Your task to perform on an android device: Open calendar and show me the first week of next month Image 0: 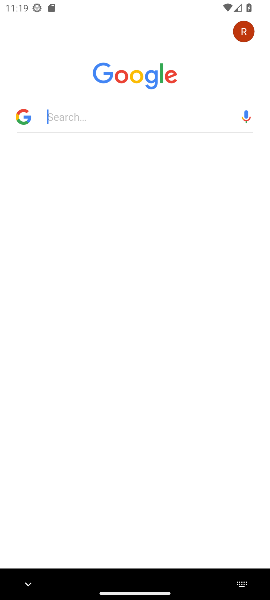
Step 0: press back button
Your task to perform on an android device: Open calendar and show me the first week of next month Image 1: 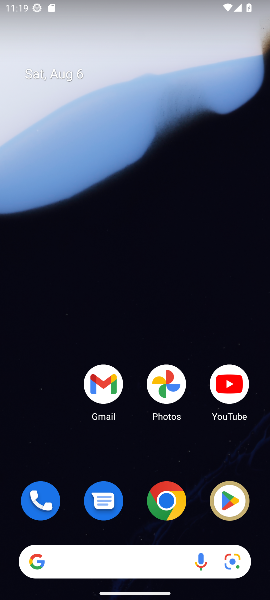
Step 1: drag from (153, 459) to (153, 56)
Your task to perform on an android device: Open calendar and show me the first week of next month Image 2: 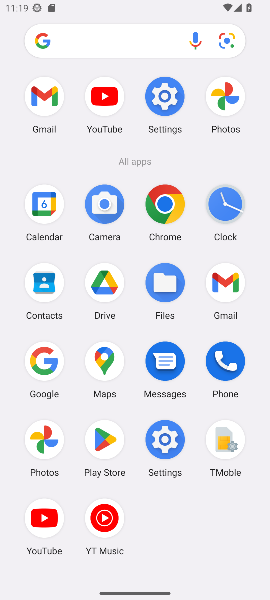
Step 2: click (40, 236)
Your task to perform on an android device: Open calendar and show me the first week of next month Image 3: 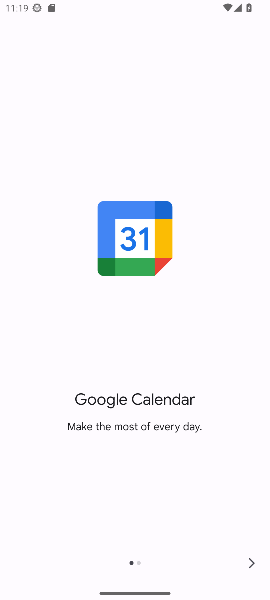
Step 3: click (254, 561)
Your task to perform on an android device: Open calendar and show me the first week of next month Image 4: 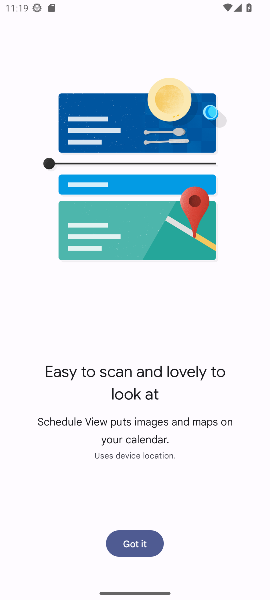
Step 4: click (254, 561)
Your task to perform on an android device: Open calendar and show me the first week of next month Image 5: 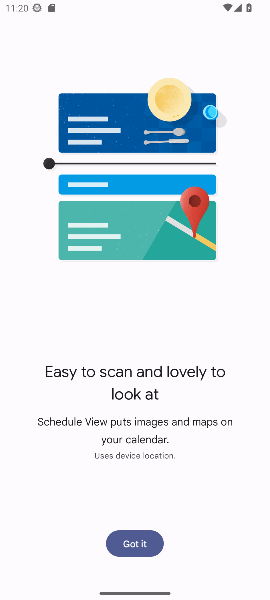
Step 5: click (146, 537)
Your task to perform on an android device: Open calendar and show me the first week of next month Image 6: 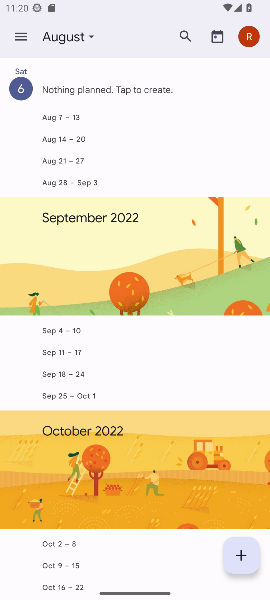
Step 6: click (27, 39)
Your task to perform on an android device: Open calendar and show me the first week of next month Image 7: 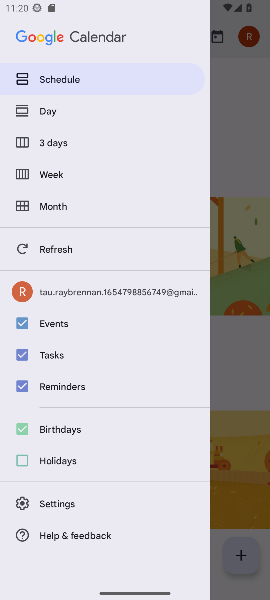
Step 7: click (42, 172)
Your task to perform on an android device: Open calendar and show me the first week of next month Image 8: 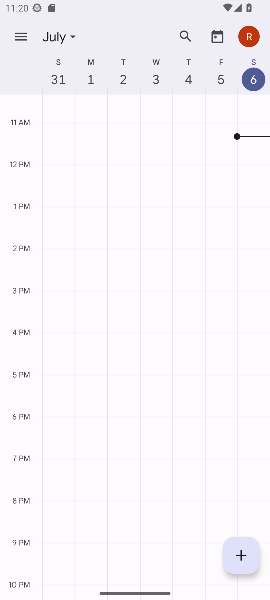
Step 8: click (52, 49)
Your task to perform on an android device: Open calendar and show me the first week of next month Image 9: 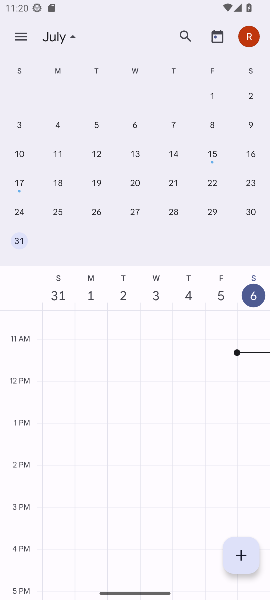
Step 9: drag from (137, 159) to (20, 157)
Your task to perform on an android device: Open calendar and show me the first week of next month Image 10: 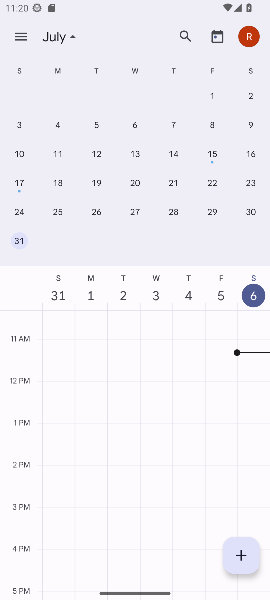
Step 10: drag from (245, 161) to (11, 156)
Your task to perform on an android device: Open calendar and show me the first week of next month Image 11: 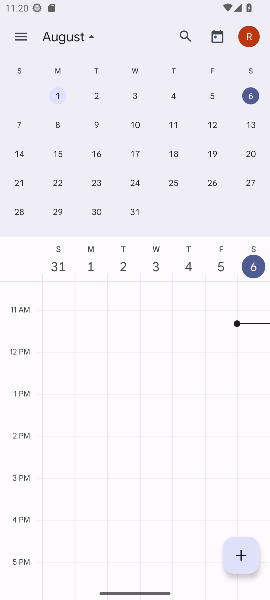
Step 11: drag from (208, 131) to (4, 128)
Your task to perform on an android device: Open calendar and show me the first week of next month Image 12: 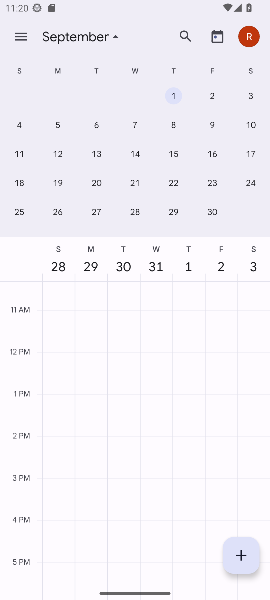
Step 12: click (166, 91)
Your task to perform on an android device: Open calendar and show me the first week of next month Image 13: 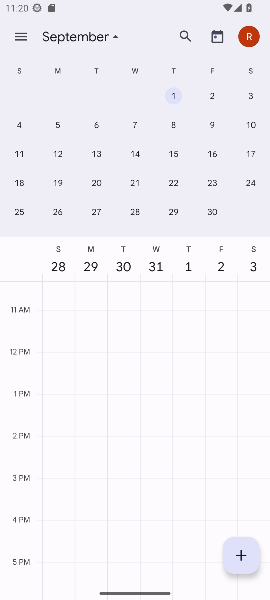
Step 13: click (166, 91)
Your task to perform on an android device: Open calendar and show me the first week of next month Image 14: 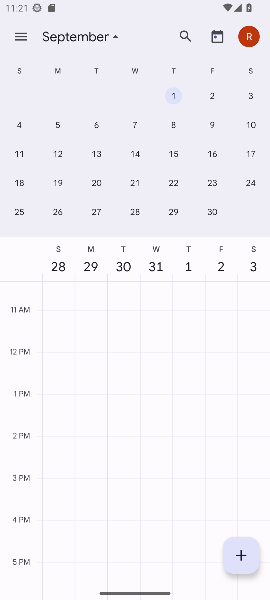
Step 14: task complete